Your task to perform on an android device: change timer sound Image 0: 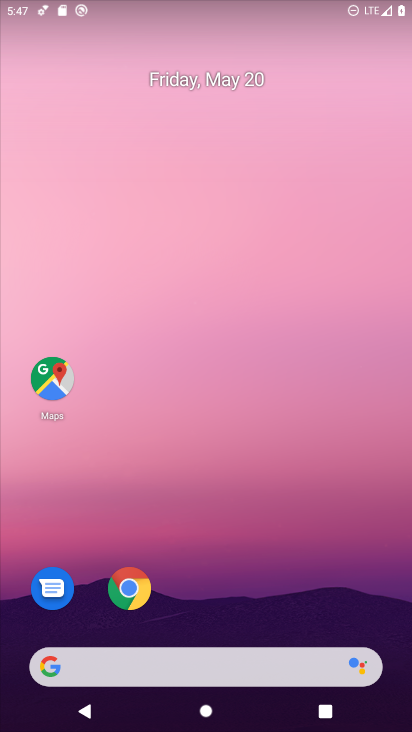
Step 0: press home button
Your task to perform on an android device: change timer sound Image 1: 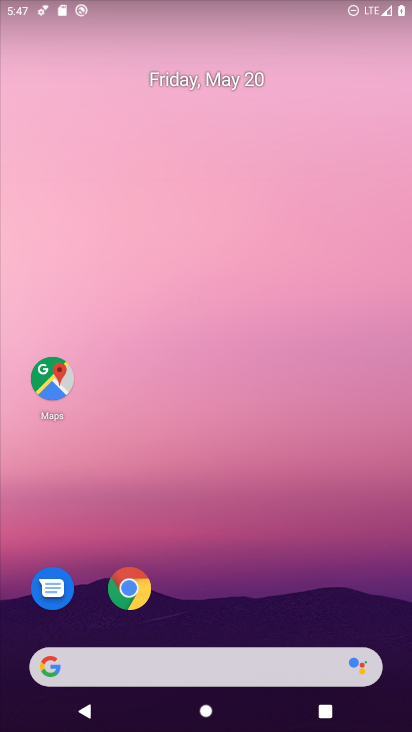
Step 1: drag from (209, 532) to (271, 101)
Your task to perform on an android device: change timer sound Image 2: 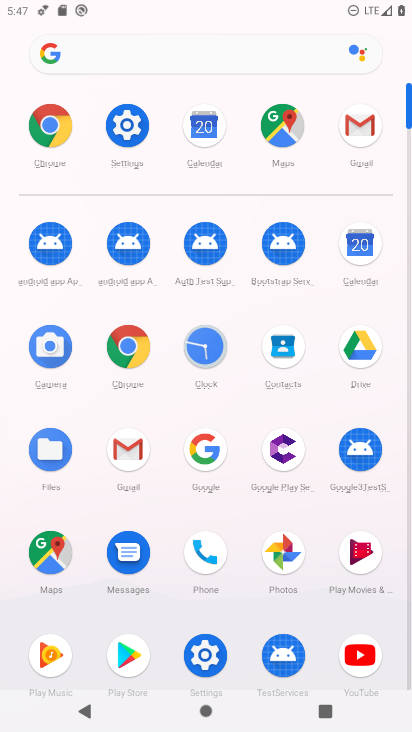
Step 2: click (192, 357)
Your task to perform on an android device: change timer sound Image 3: 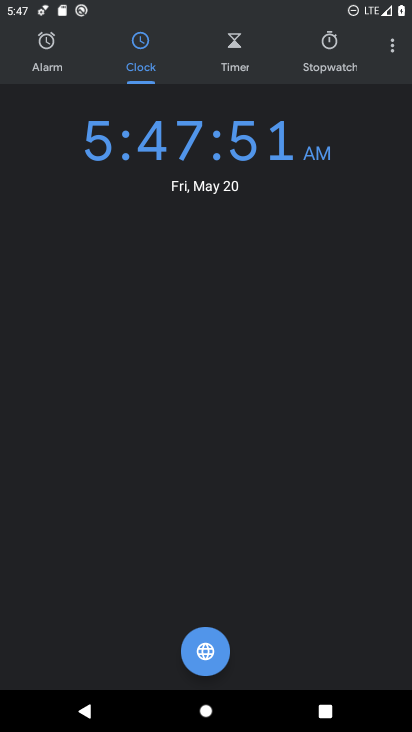
Step 3: click (395, 51)
Your task to perform on an android device: change timer sound Image 4: 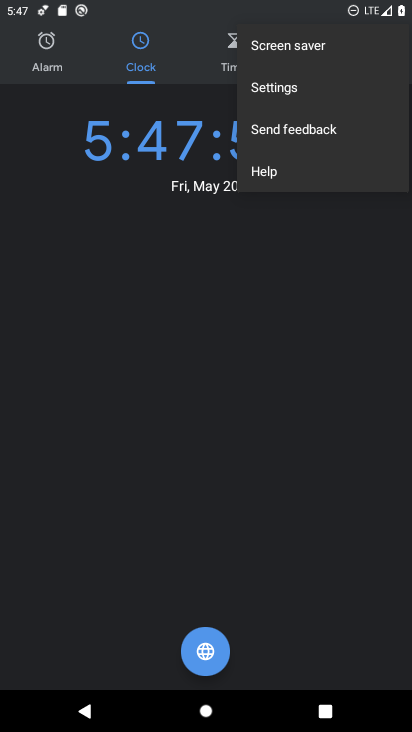
Step 4: click (299, 89)
Your task to perform on an android device: change timer sound Image 5: 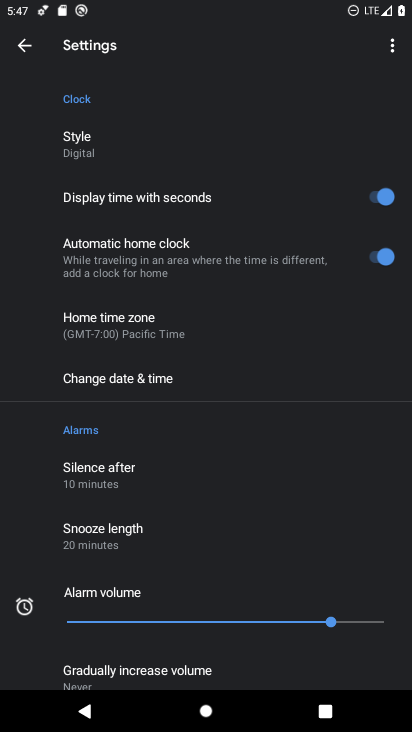
Step 5: drag from (197, 611) to (190, 264)
Your task to perform on an android device: change timer sound Image 6: 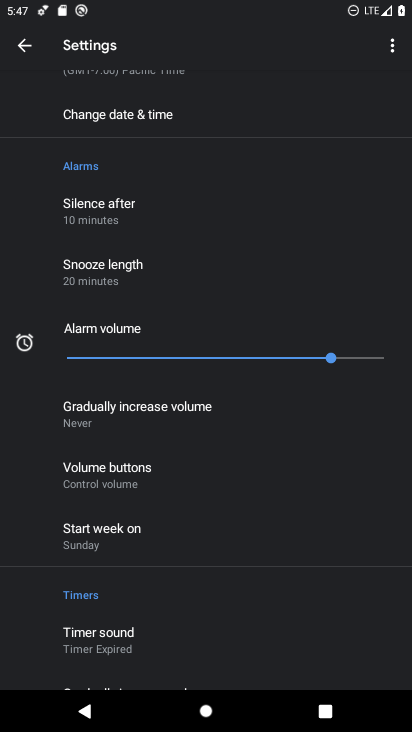
Step 6: click (119, 646)
Your task to perform on an android device: change timer sound Image 7: 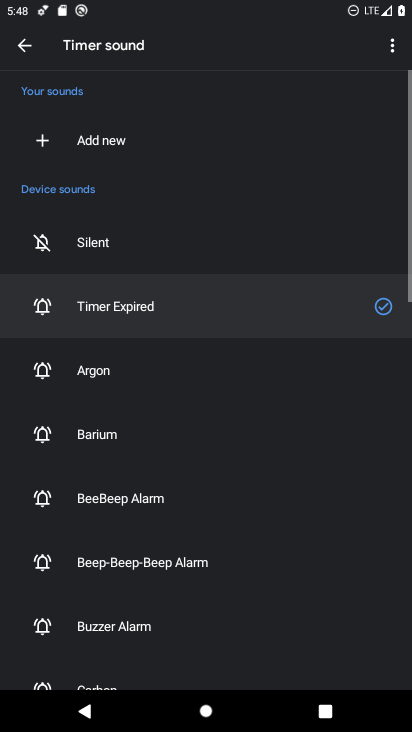
Step 7: click (115, 634)
Your task to perform on an android device: change timer sound Image 8: 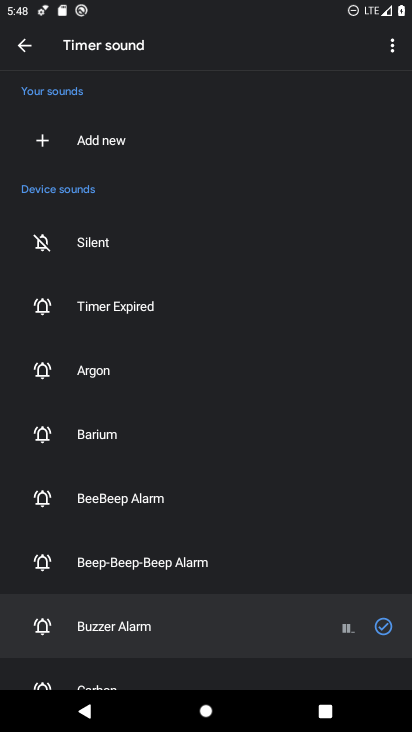
Step 8: task complete